Your task to perform on an android device: Show the shopping cart on costco. Add dell xps to the cart on costco, then select checkout. Image 0: 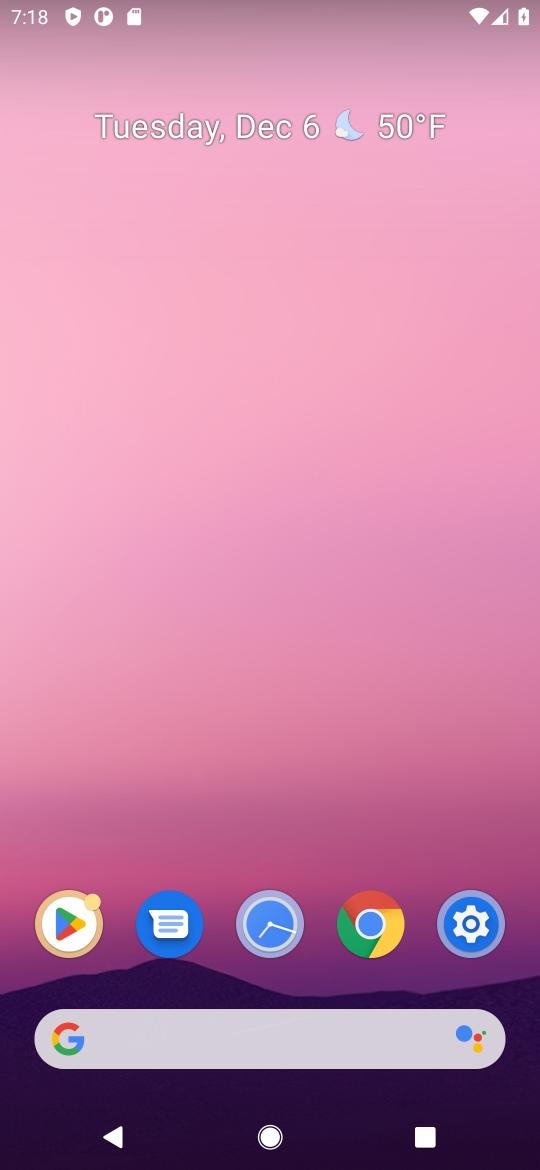
Step 0: click (229, 1058)
Your task to perform on an android device: Show the shopping cart on costco. Add dell xps to the cart on costco, then select checkout. Image 1: 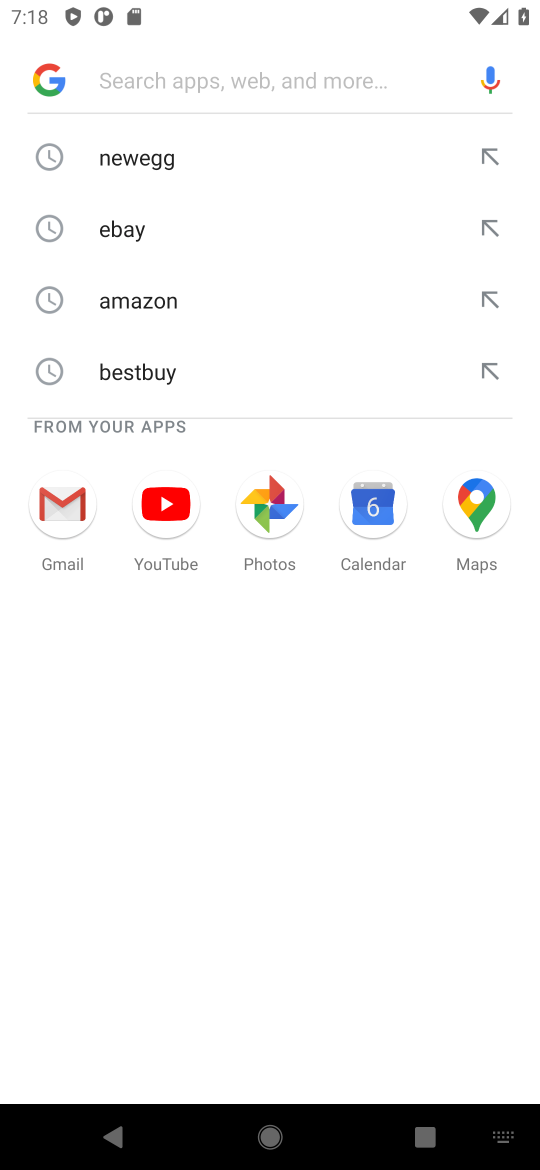
Step 1: type "costco"
Your task to perform on an android device: Show the shopping cart on costco. Add dell xps to the cart on costco, then select checkout. Image 2: 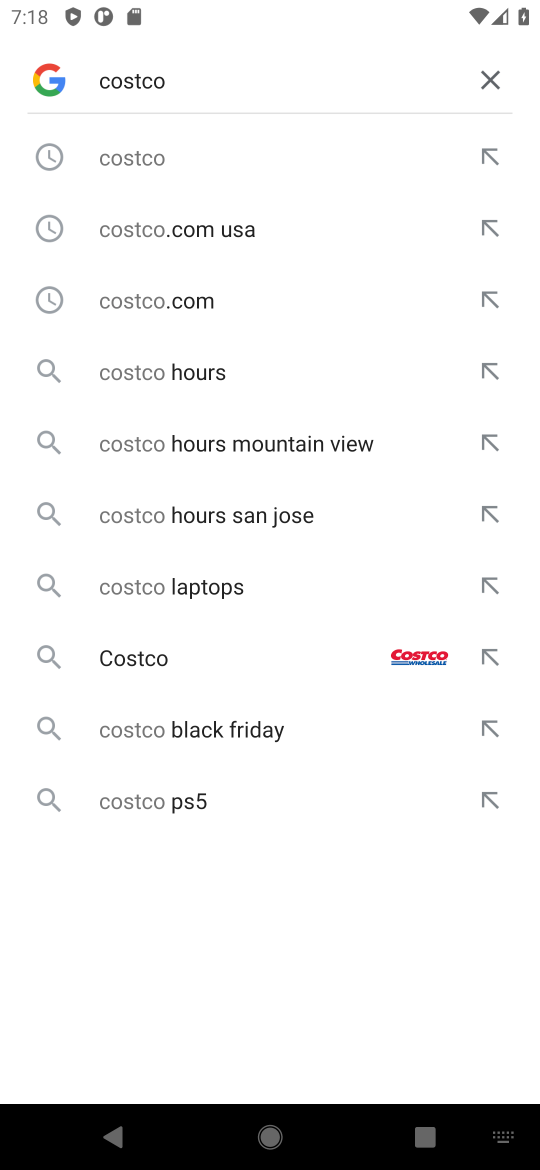
Step 2: click (205, 158)
Your task to perform on an android device: Show the shopping cart on costco. Add dell xps to the cart on costco, then select checkout. Image 3: 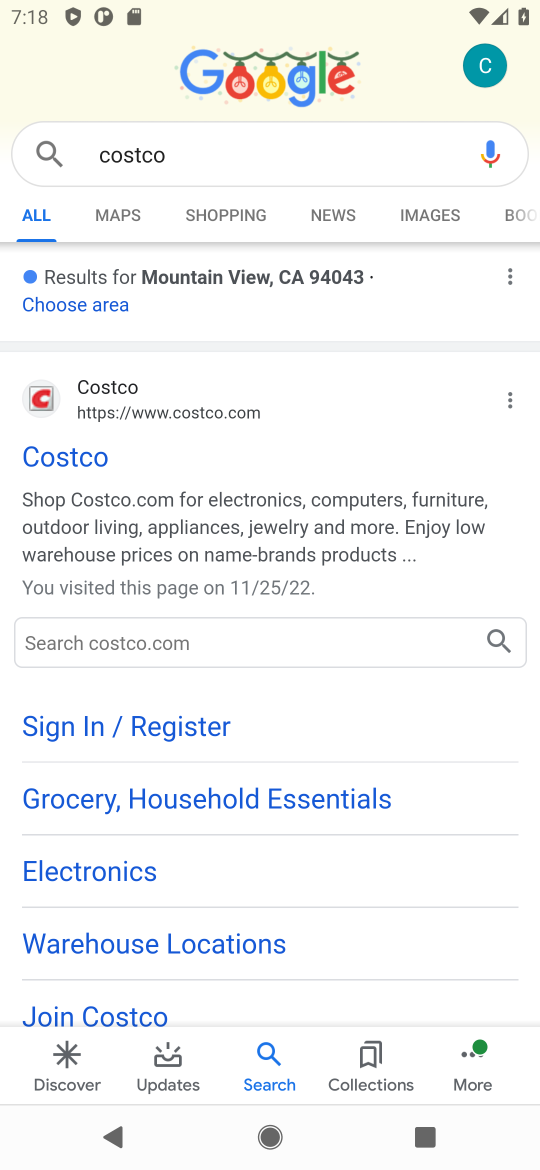
Step 3: click (102, 453)
Your task to perform on an android device: Show the shopping cart on costco. Add dell xps to the cart on costco, then select checkout. Image 4: 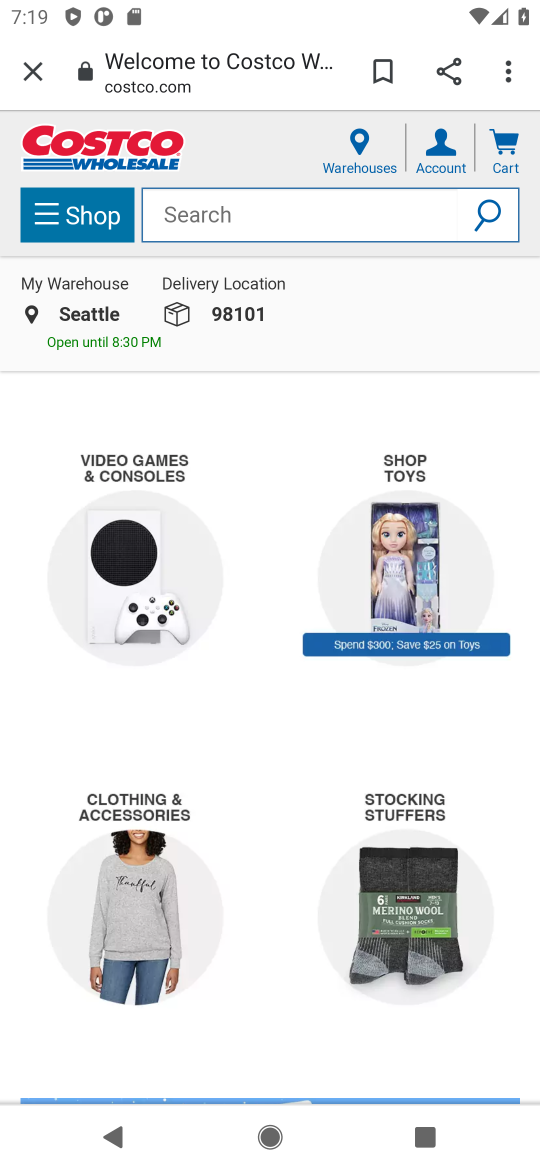
Step 4: task complete